Your task to perform on an android device: open app "Microsoft Outlook" (install if not already installed) and go to login screen Image 0: 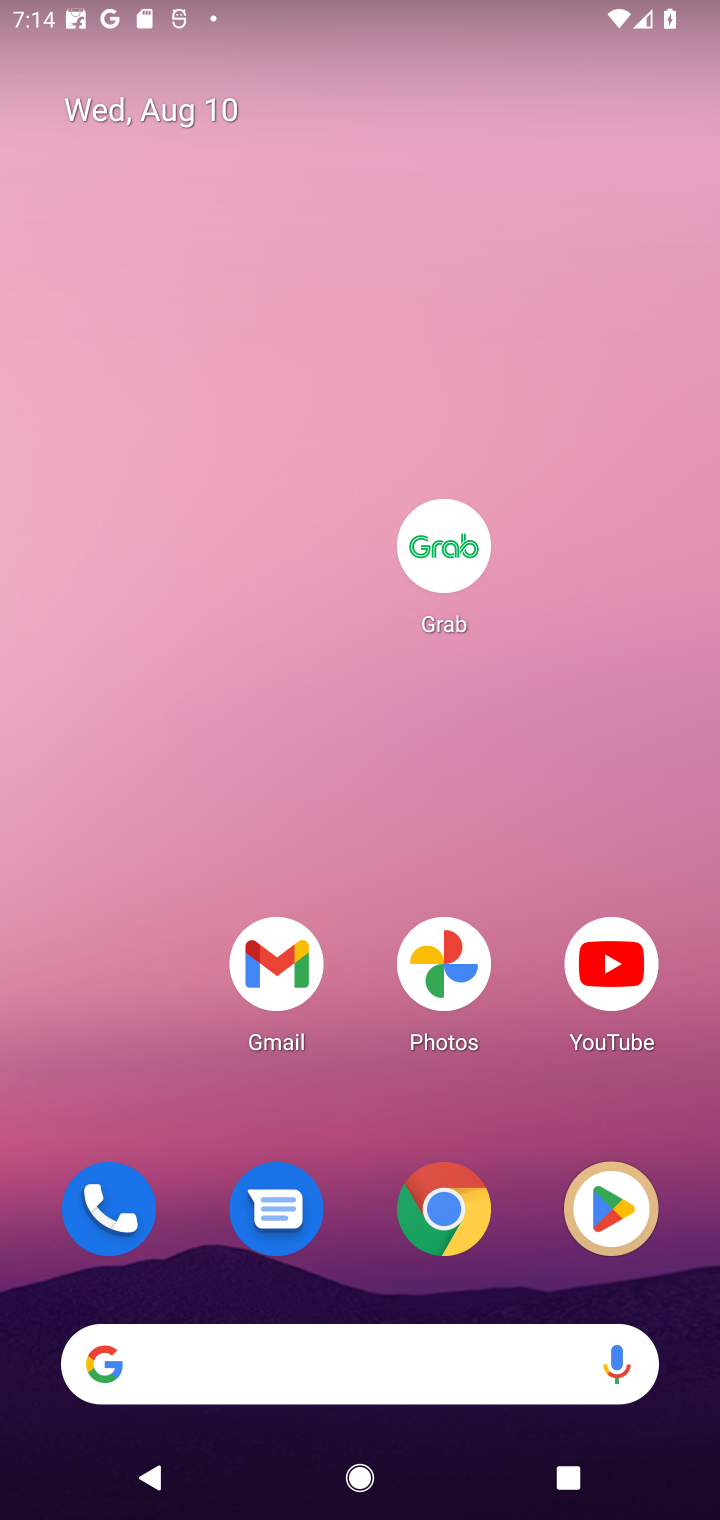
Step 0: drag from (348, 1279) to (493, 73)
Your task to perform on an android device: open app "Microsoft Outlook" (install if not already installed) and go to login screen Image 1: 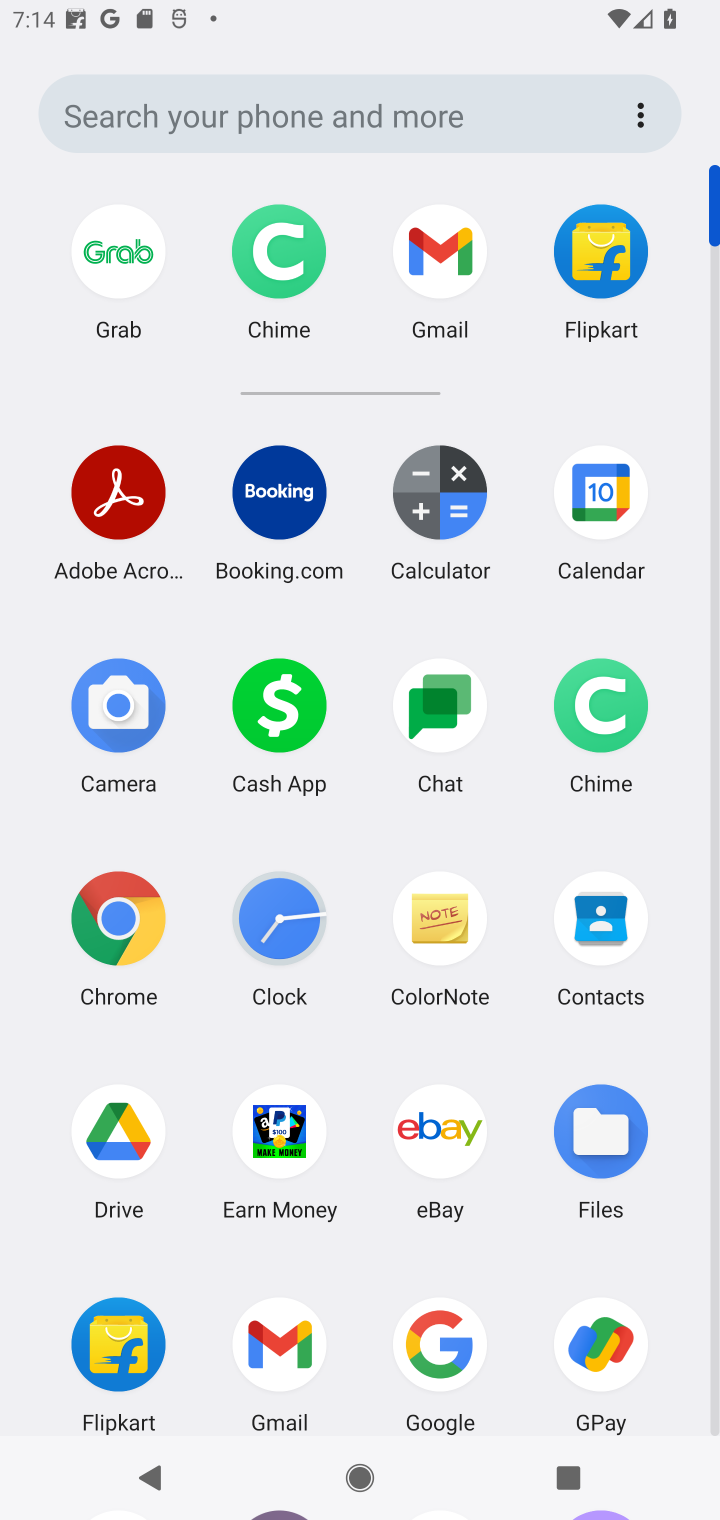
Step 1: press home button
Your task to perform on an android device: open app "Microsoft Outlook" (install if not already installed) and go to login screen Image 2: 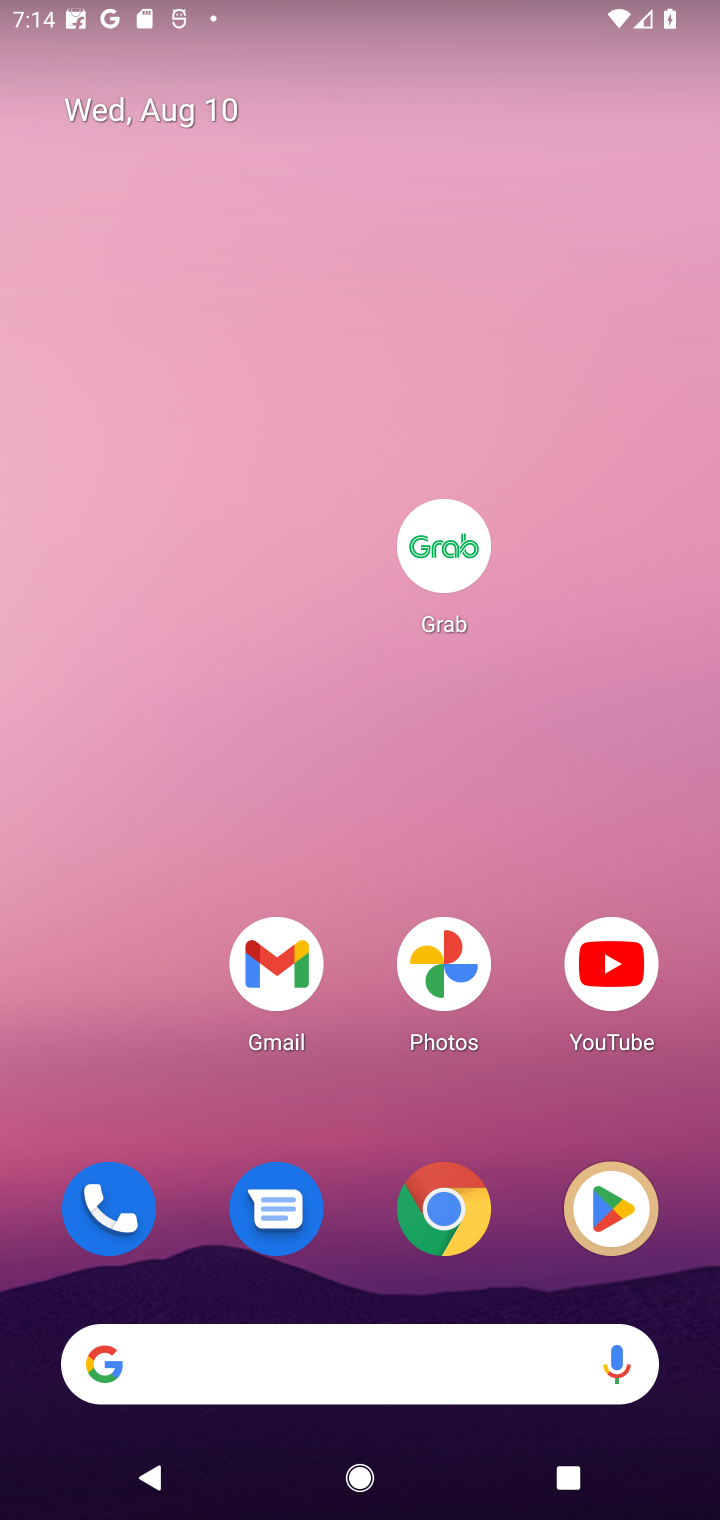
Step 2: click (606, 1228)
Your task to perform on an android device: open app "Microsoft Outlook" (install if not already installed) and go to login screen Image 3: 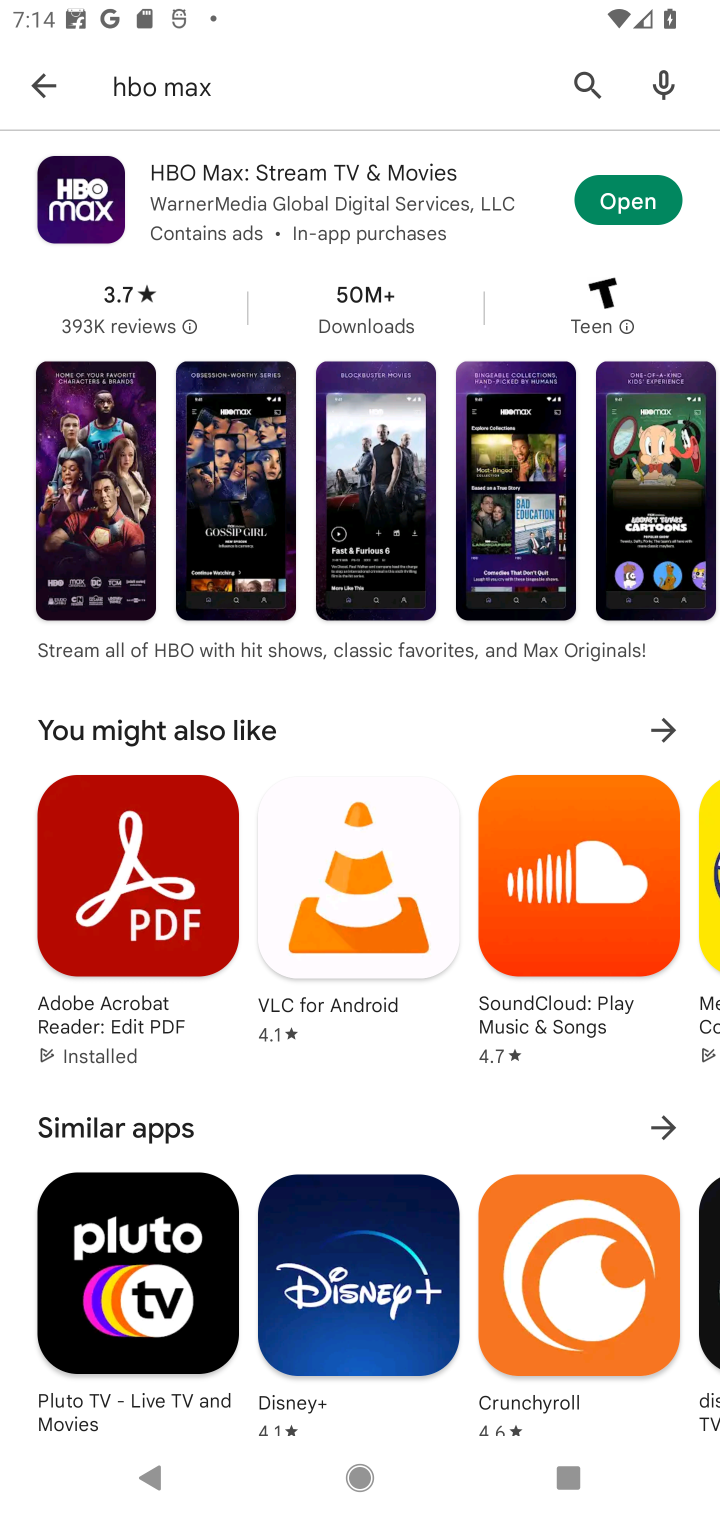
Step 3: click (611, 107)
Your task to perform on an android device: open app "Microsoft Outlook" (install if not already installed) and go to login screen Image 4: 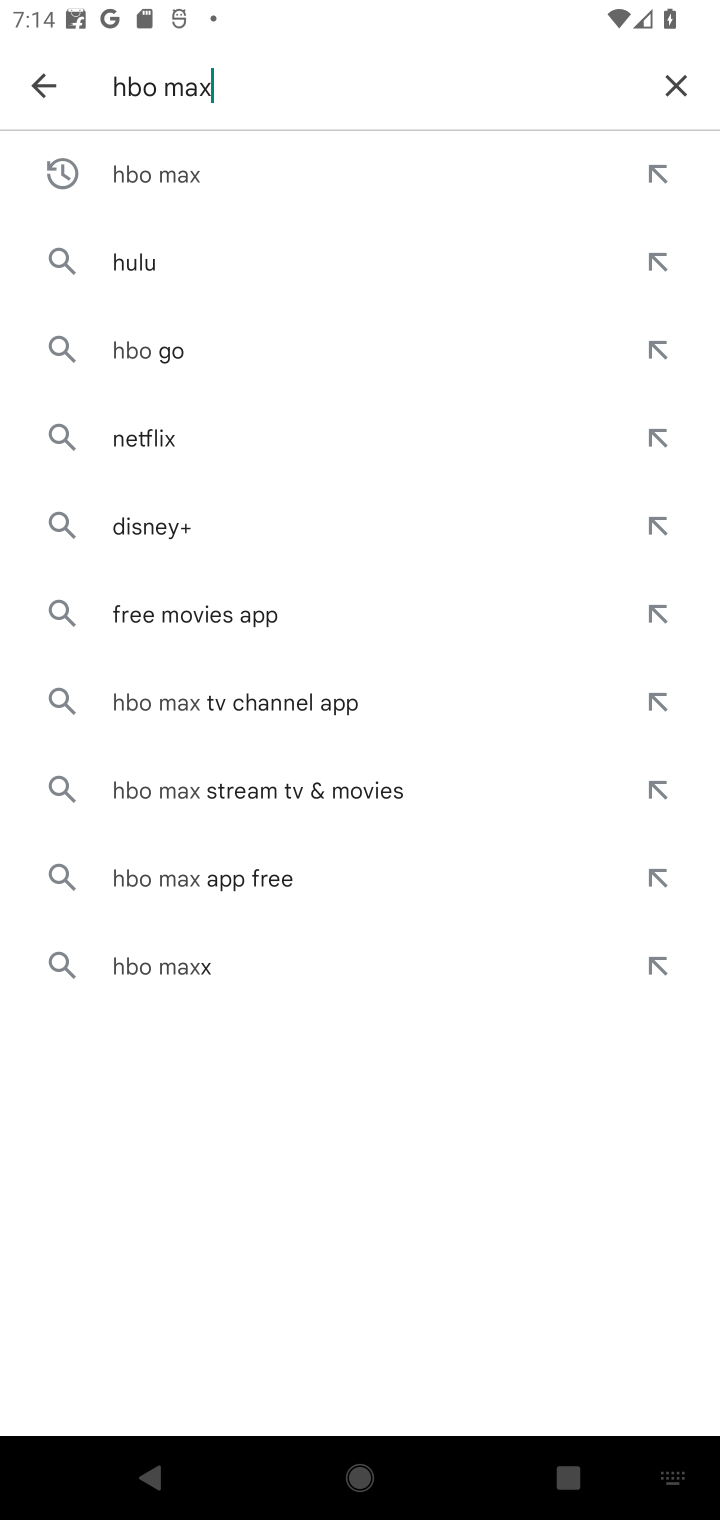
Step 4: click (662, 102)
Your task to perform on an android device: open app "Microsoft Outlook" (install if not already installed) and go to login screen Image 5: 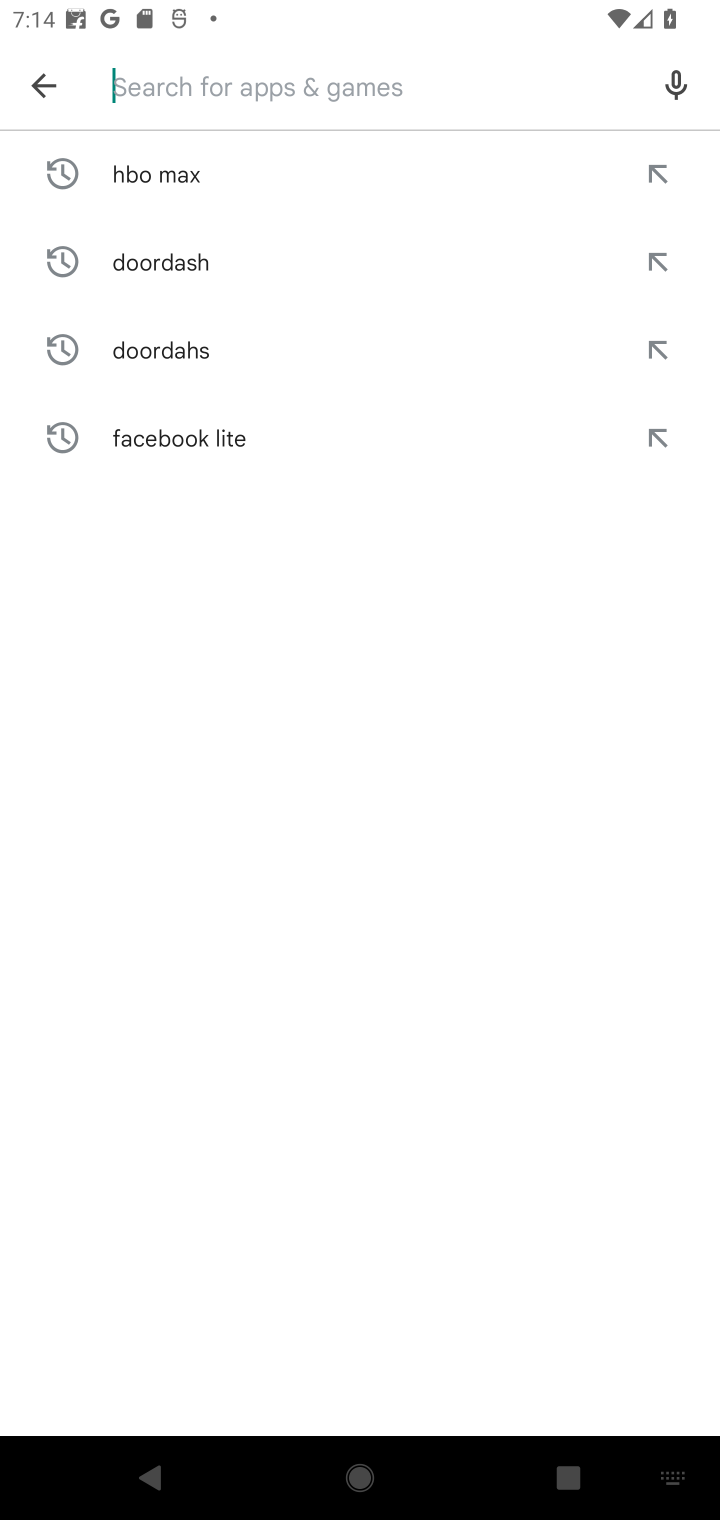
Step 5: type "microsoft outlook"
Your task to perform on an android device: open app "Microsoft Outlook" (install if not already installed) and go to login screen Image 6: 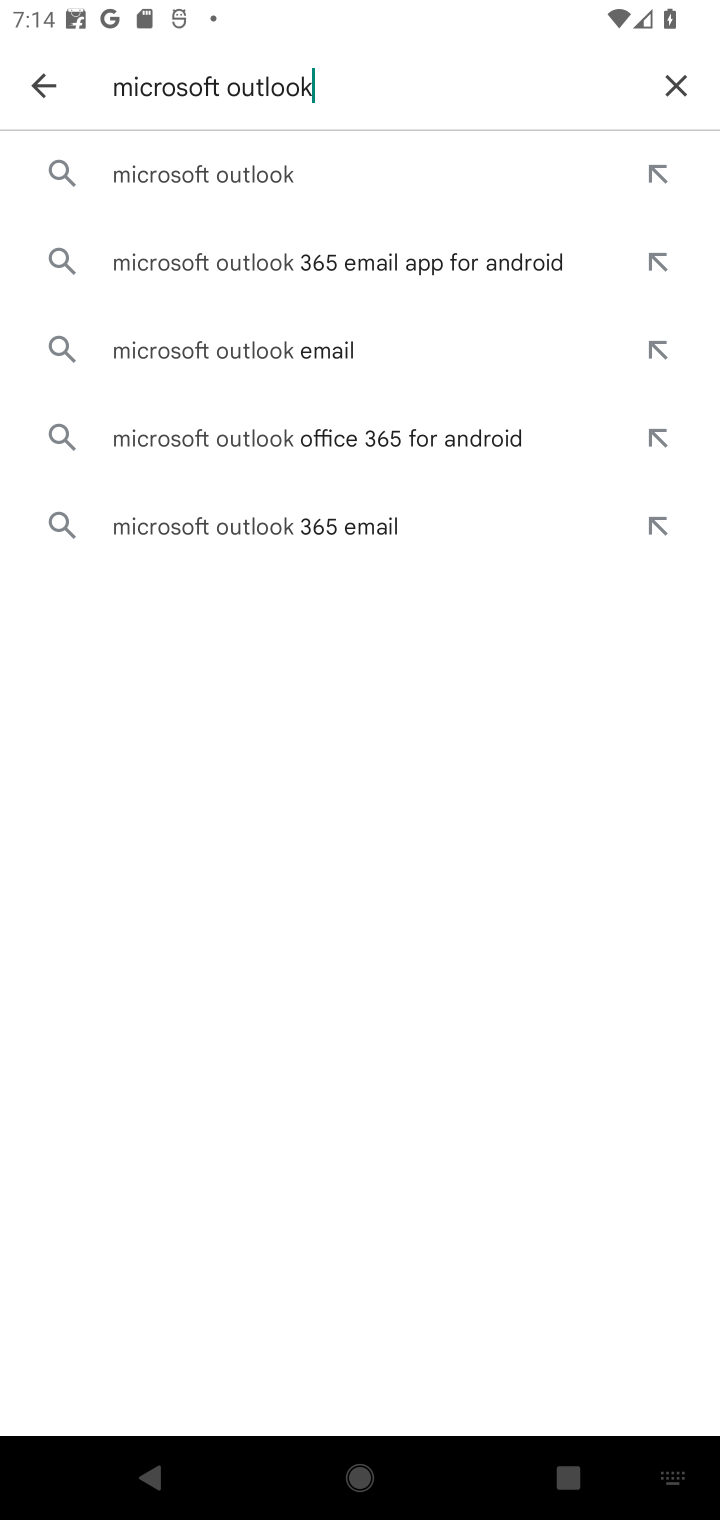
Step 6: click (155, 178)
Your task to perform on an android device: open app "Microsoft Outlook" (install if not already installed) and go to login screen Image 7: 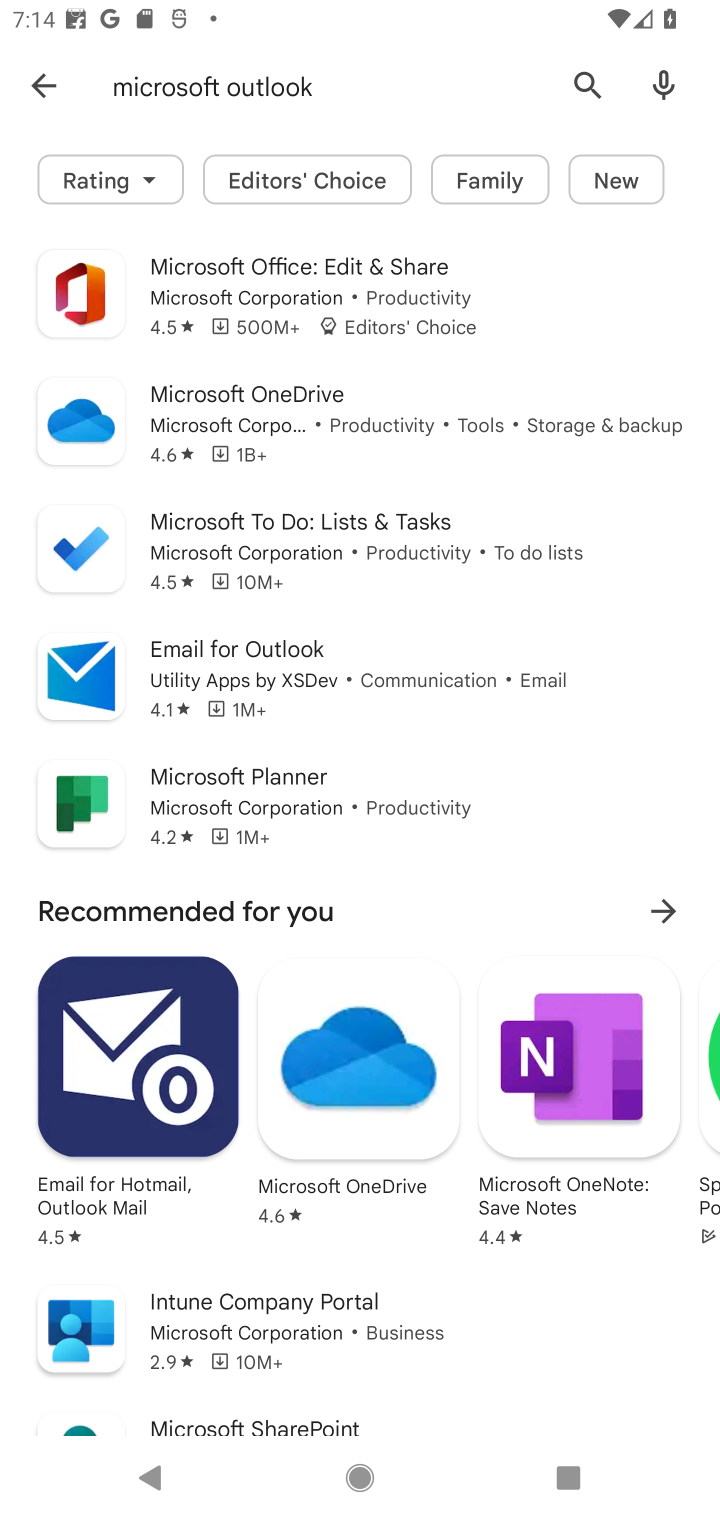
Step 7: click (407, 287)
Your task to perform on an android device: open app "Microsoft Outlook" (install if not already installed) and go to login screen Image 8: 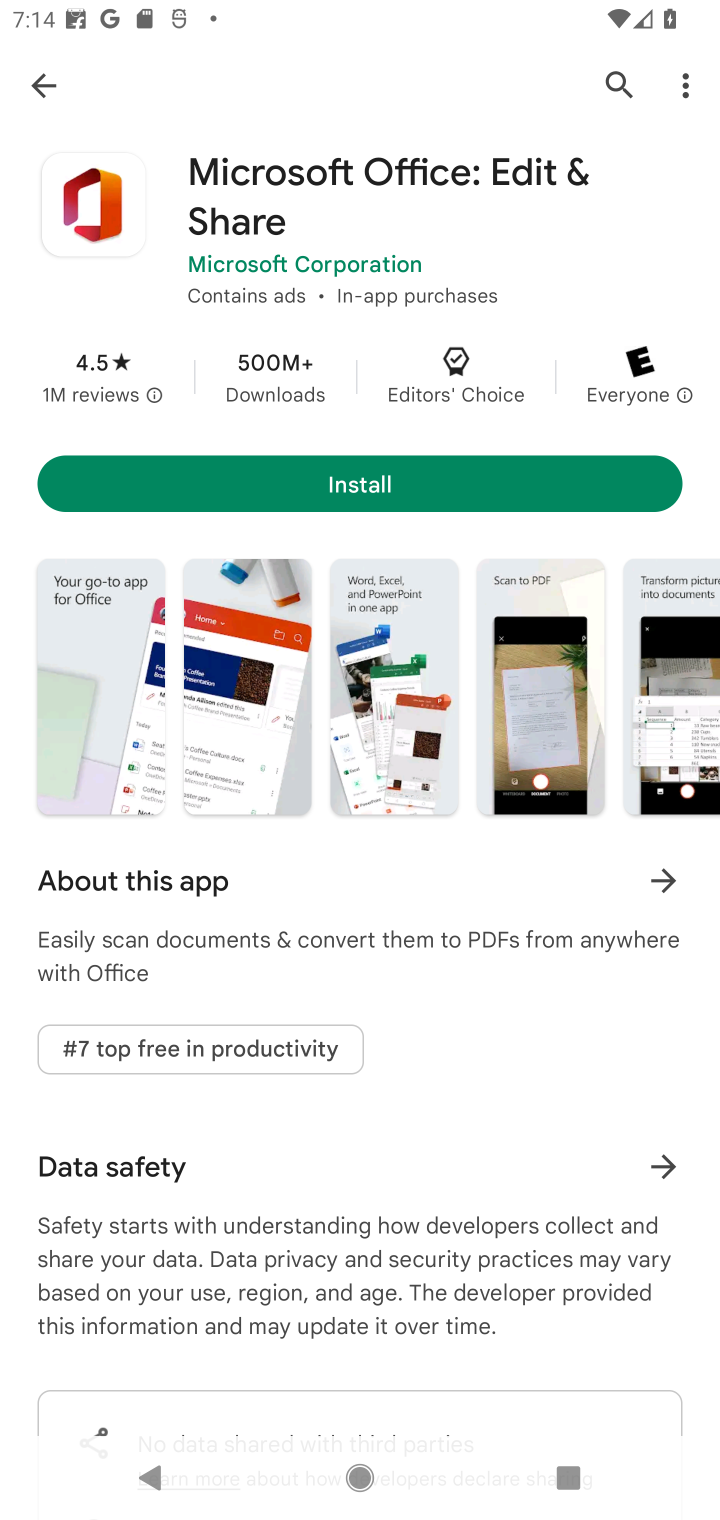
Step 8: click (454, 456)
Your task to perform on an android device: open app "Microsoft Outlook" (install if not already installed) and go to login screen Image 9: 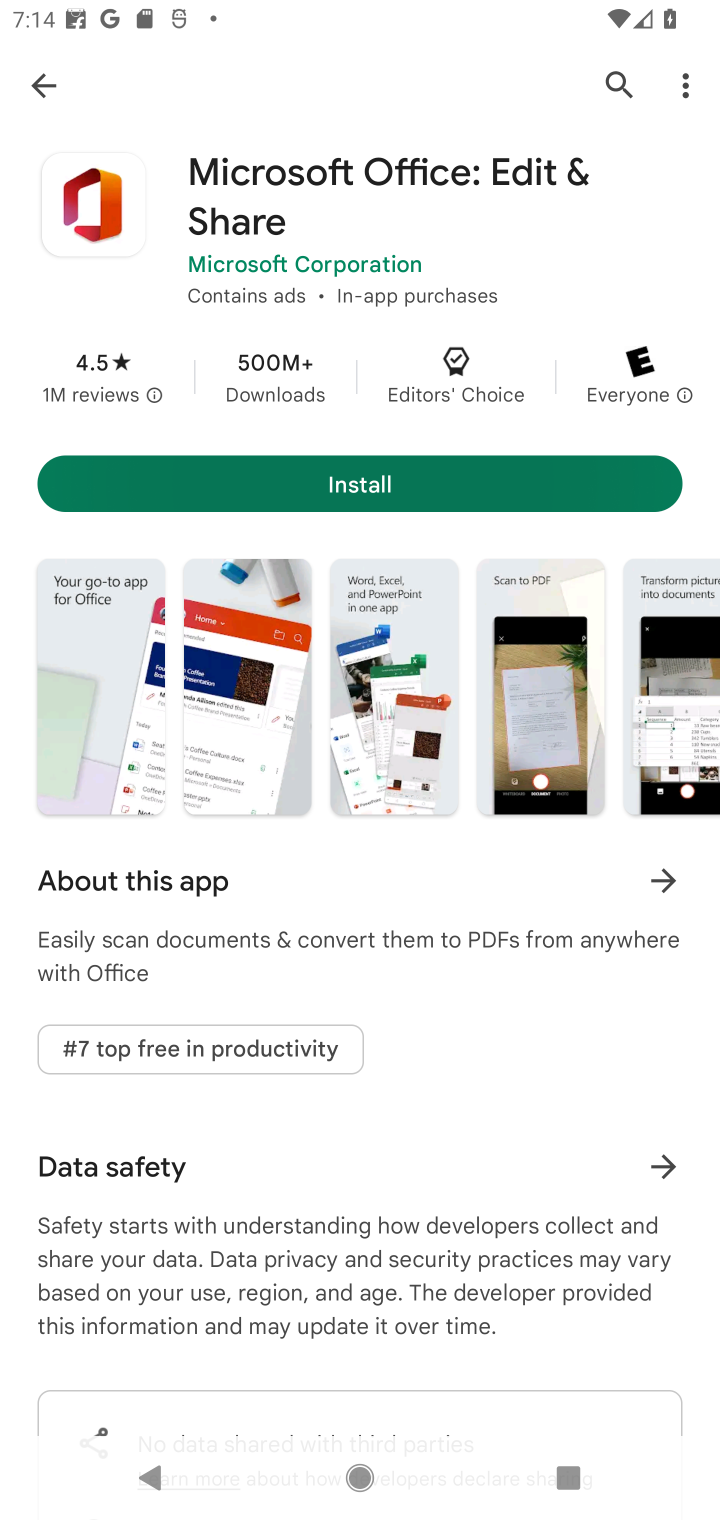
Step 9: task complete